Your task to perform on an android device: Open calendar and show me the second week of next month Image 0: 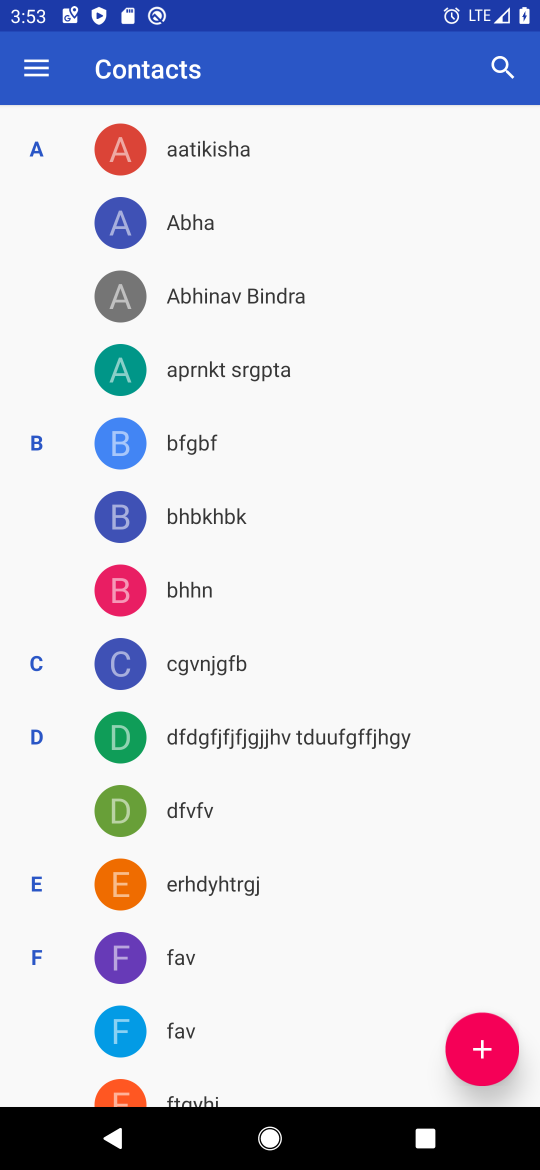
Step 0: press home button
Your task to perform on an android device: Open calendar and show me the second week of next month Image 1: 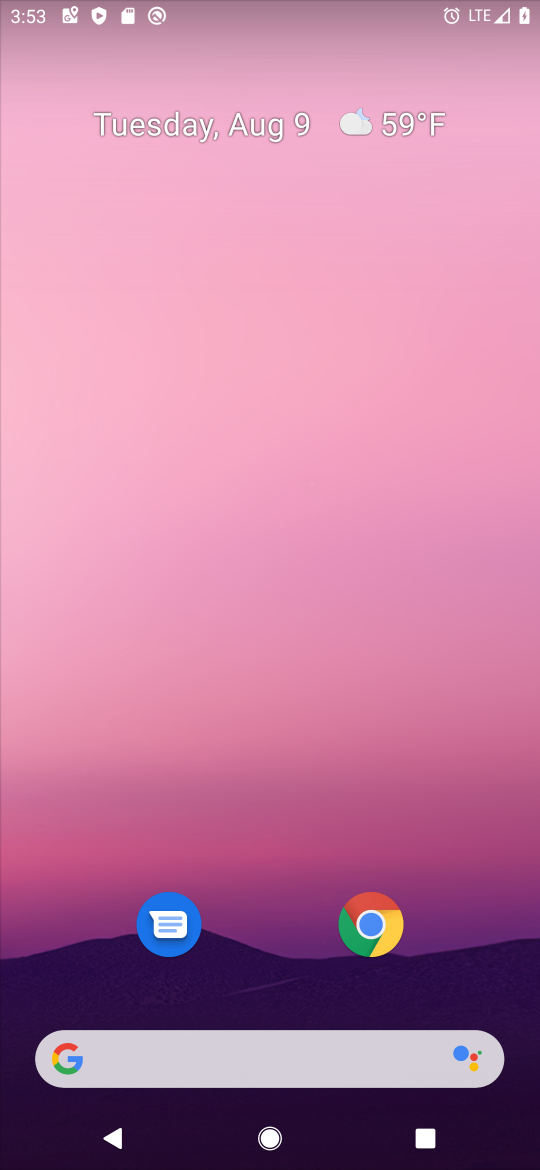
Step 1: drag from (292, 917) to (307, 27)
Your task to perform on an android device: Open calendar and show me the second week of next month Image 2: 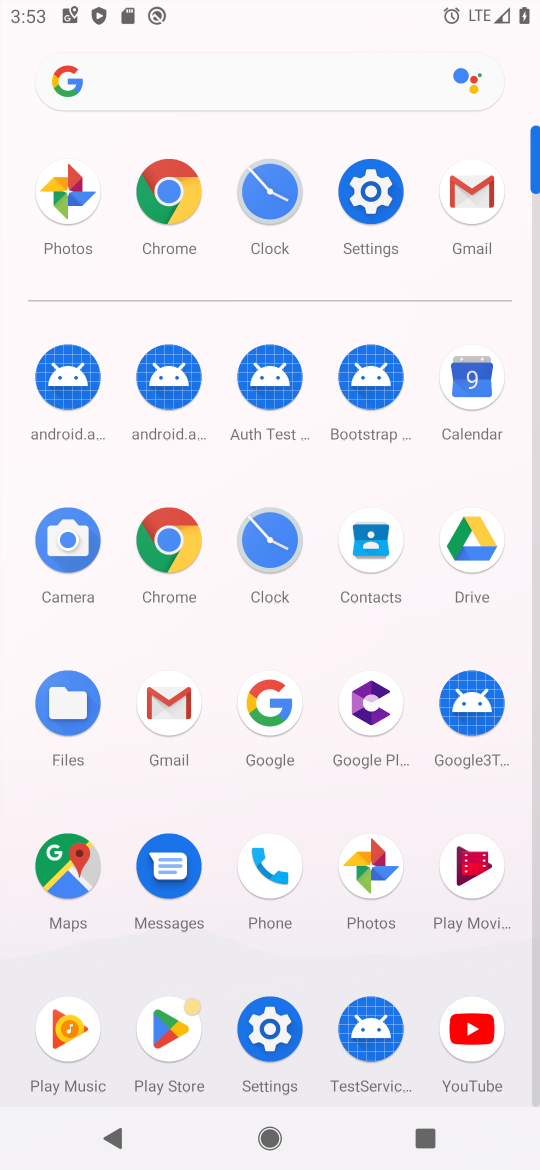
Step 2: click (478, 381)
Your task to perform on an android device: Open calendar and show me the second week of next month Image 3: 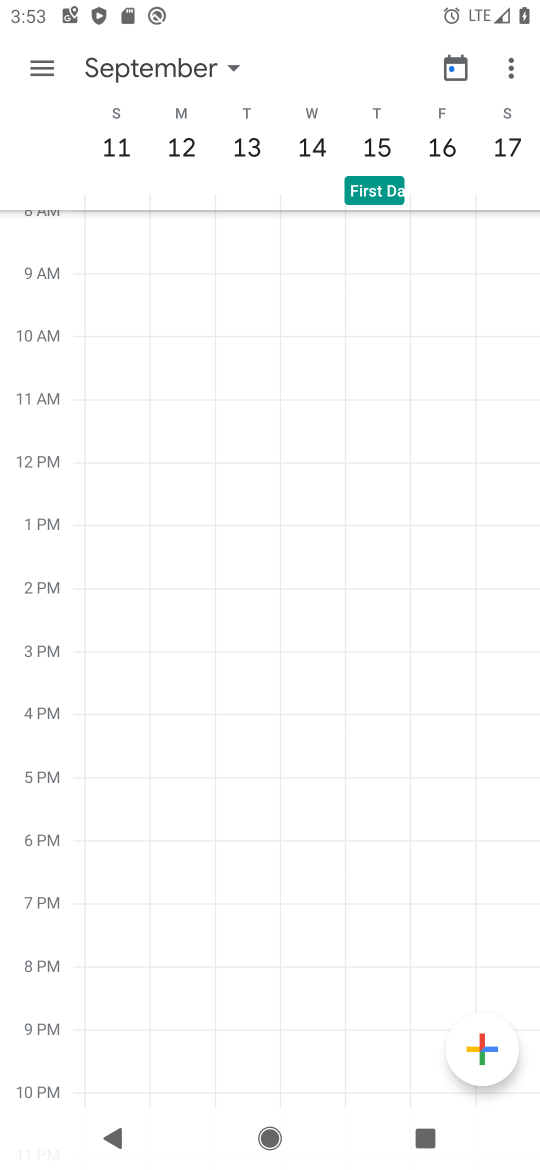
Step 3: task complete